Your task to perform on an android device: Show me popular games on the Play Store Image 0: 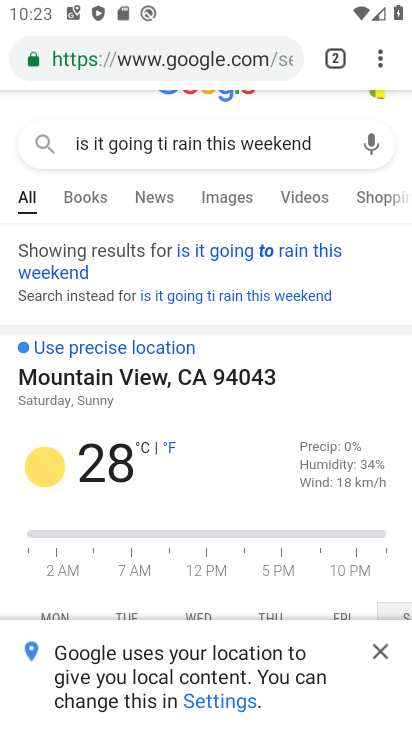
Step 0: press home button
Your task to perform on an android device: Show me popular games on the Play Store Image 1: 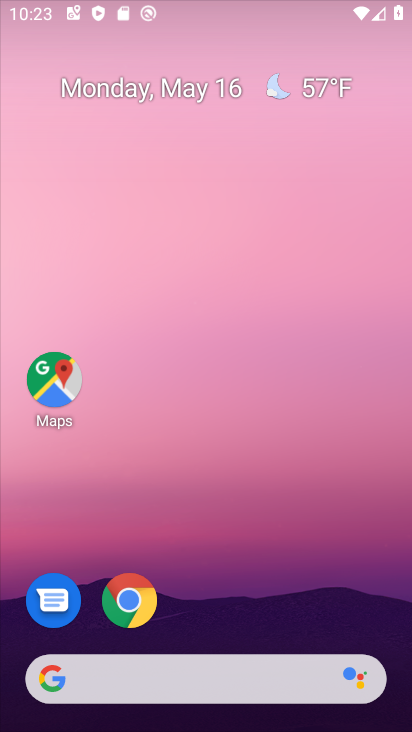
Step 1: drag from (356, 600) to (308, 84)
Your task to perform on an android device: Show me popular games on the Play Store Image 2: 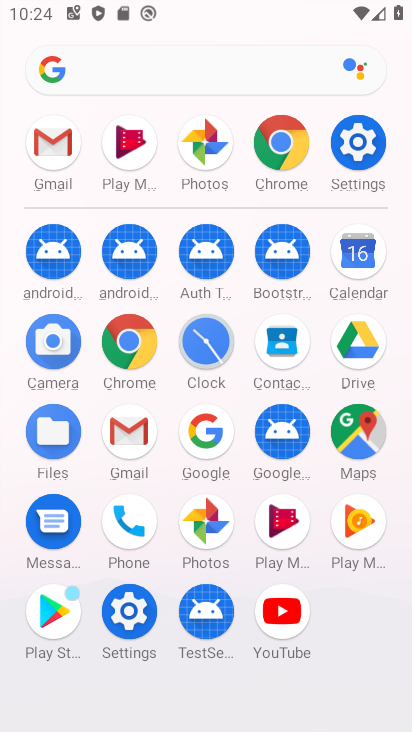
Step 2: click (56, 600)
Your task to perform on an android device: Show me popular games on the Play Store Image 3: 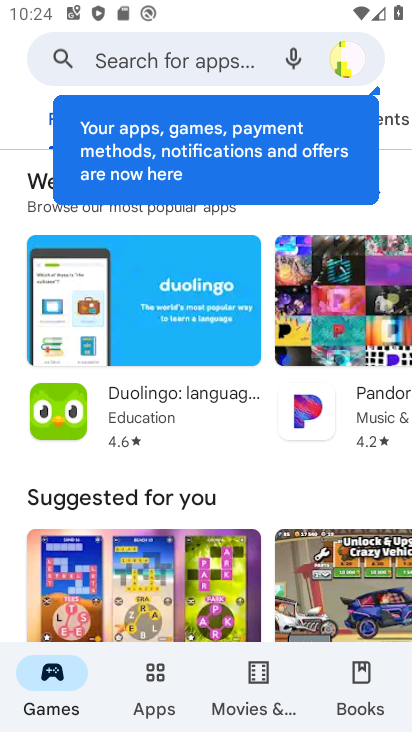
Step 3: click (164, 669)
Your task to perform on an android device: Show me popular games on the Play Store Image 4: 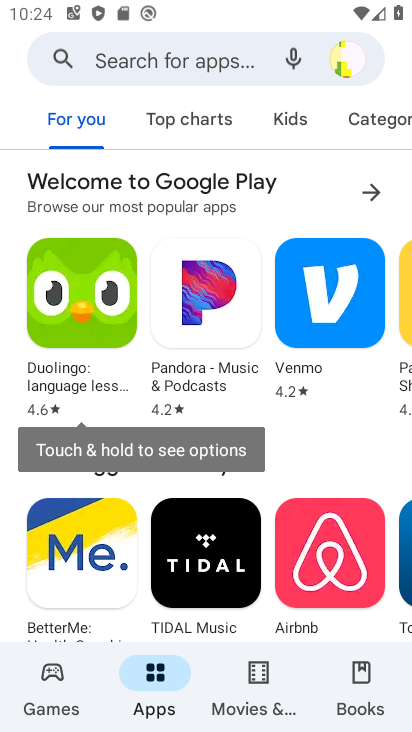
Step 4: click (364, 117)
Your task to perform on an android device: Show me popular games on the Play Store Image 5: 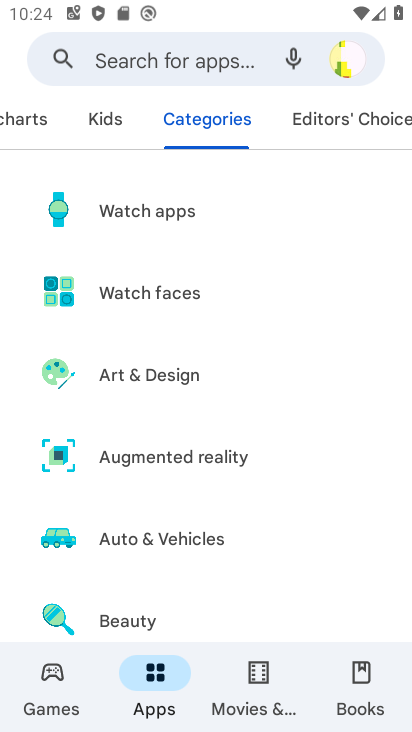
Step 5: drag from (213, 614) to (262, 243)
Your task to perform on an android device: Show me popular games on the Play Store Image 6: 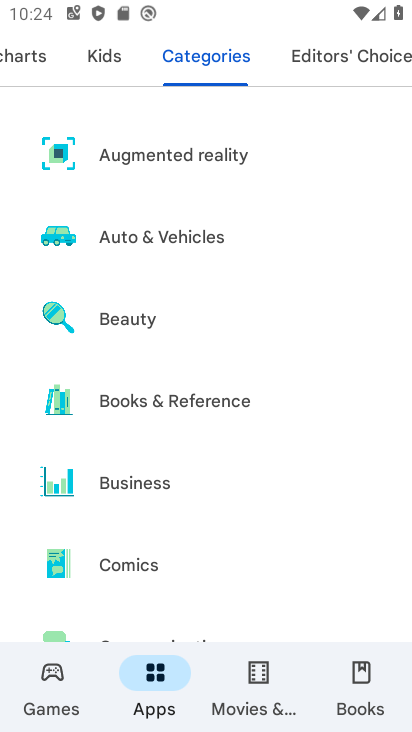
Step 6: drag from (245, 583) to (262, 275)
Your task to perform on an android device: Show me popular games on the Play Store Image 7: 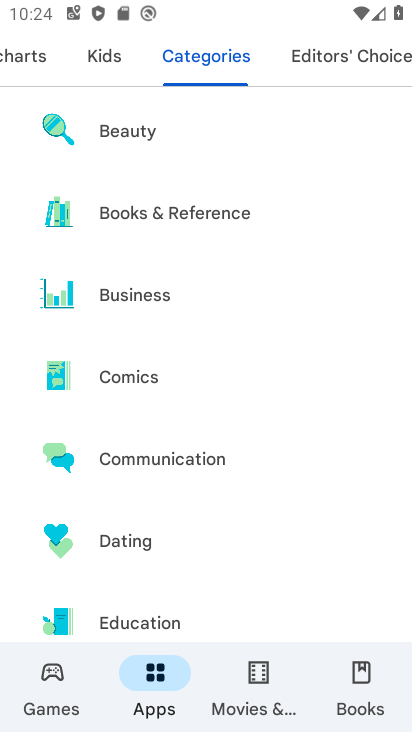
Step 7: drag from (299, 583) to (300, 164)
Your task to perform on an android device: Show me popular games on the Play Store Image 8: 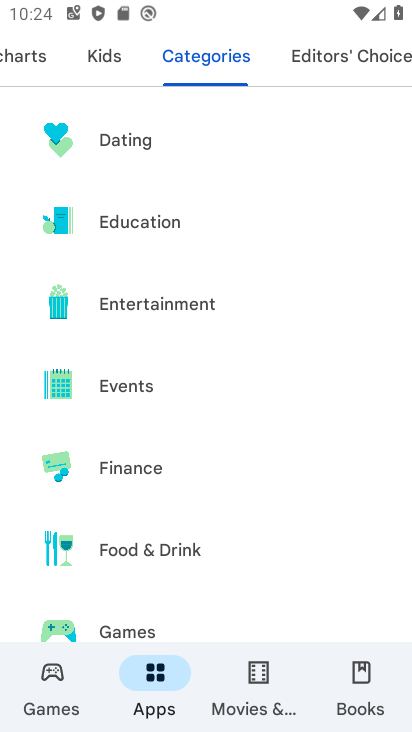
Step 8: drag from (257, 572) to (277, 225)
Your task to perform on an android device: Show me popular games on the Play Store Image 9: 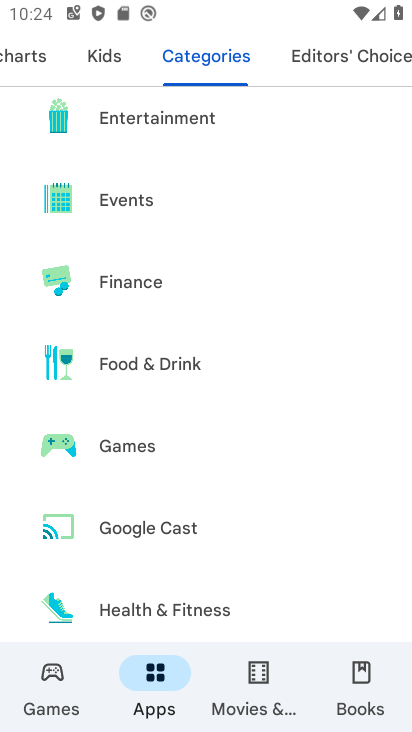
Step 9: drag from (242, 567) to (269, 211)
Your task to perform on an android device: Show me popular games on the Play Store Image 10: 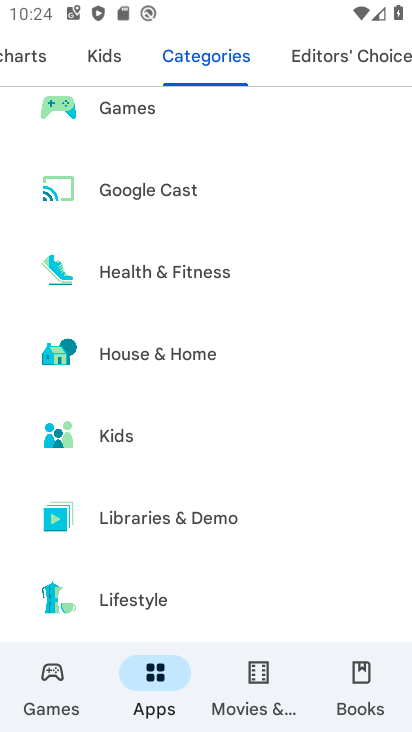
Step 10: drag from (284, 536) to (248, 216)
Your task to perform on an android device: Show me popular games on the Play Store Image 11: 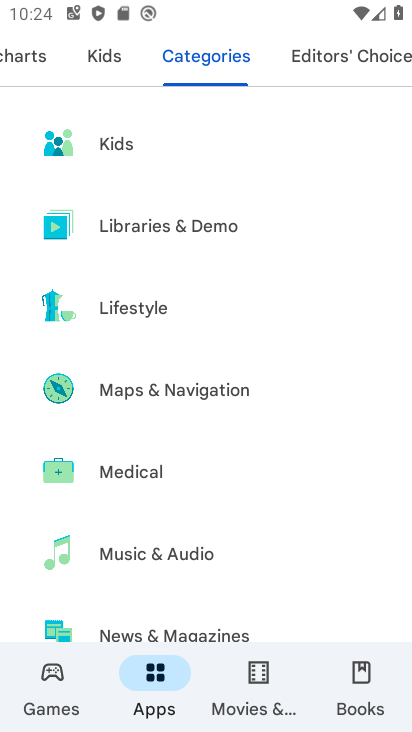
Step 11: drag from (246, 690) to (283, 292)
Your task to perform on an android device: Show me popular games on the Play Store Image 12: 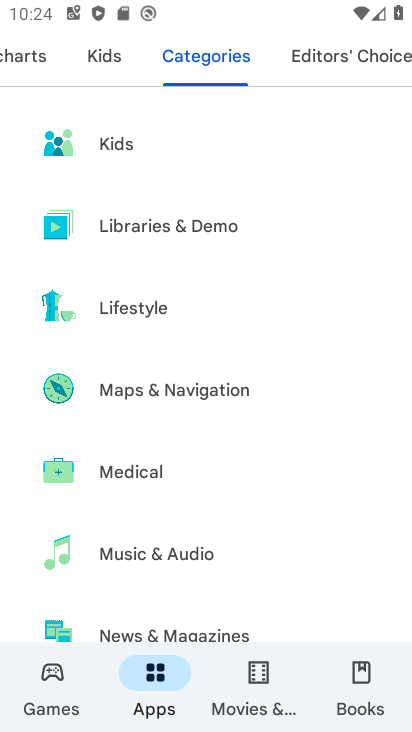
Step 12: drag from (242, 622) to (250, 282)
Your task to perform on an android device: Show me popular games on the Play Store Image 13: 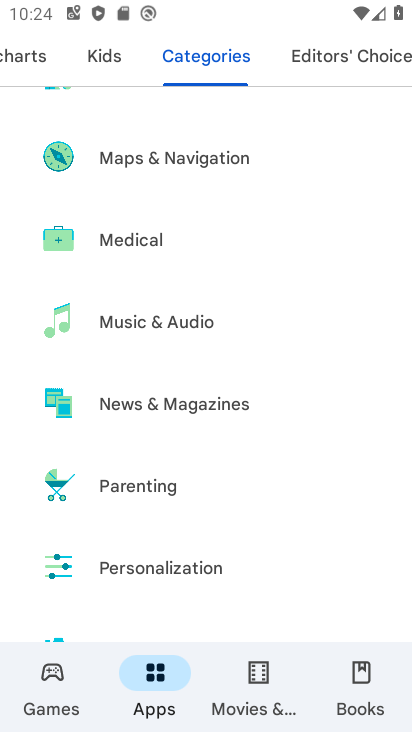
Step 13: drag from (215, 616) to (235, 380)
Your task to perform on an android device: Show me popular games on the Play Store Image 14: 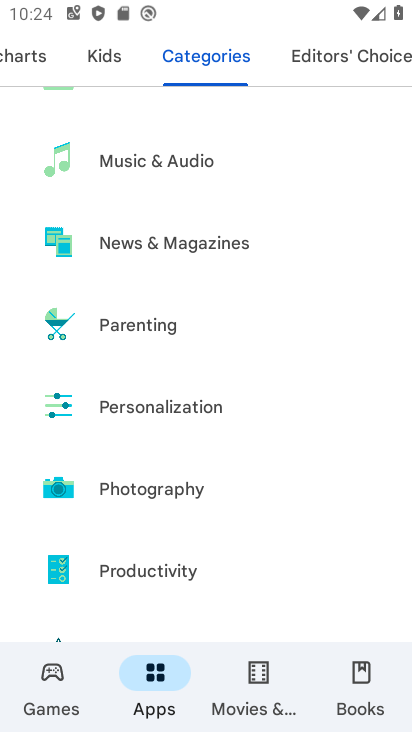
Step 14: click (158, 569)
Your task to perform on an android device: Show me popular games on the Play Store Image 15: 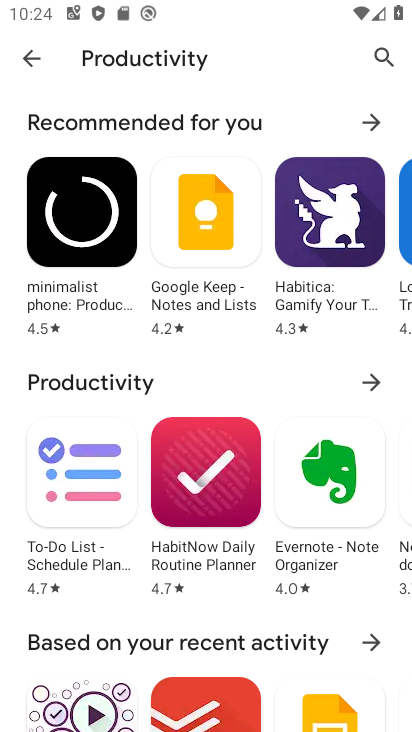
Step 15: task complete